Your task to perform on an android device: Search for Italian restaurants on Maps Image 0: 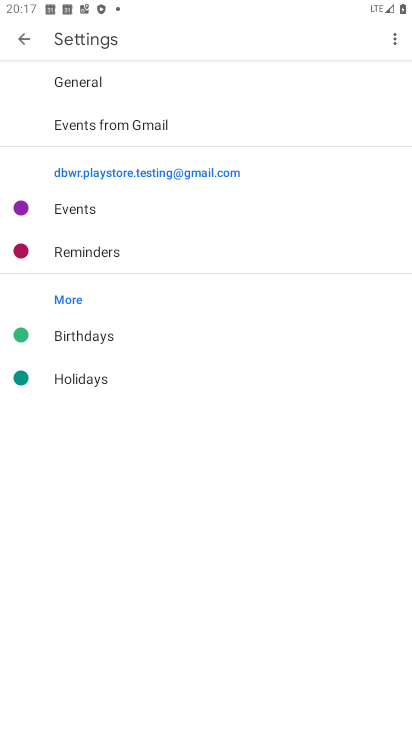
Step 0: press home button
Your task to perform on an android device: Search for Italian restaurants on Maps Image 1: 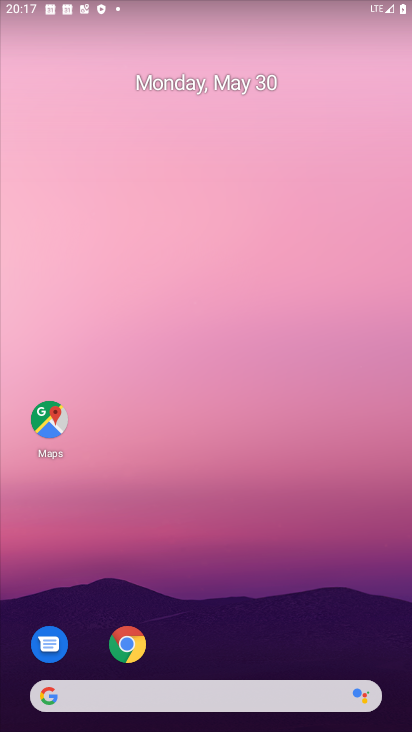
Step 1: click (49, 422)
Your task to perform on an android device: Search for Italian restaurants on Maps Image 2: 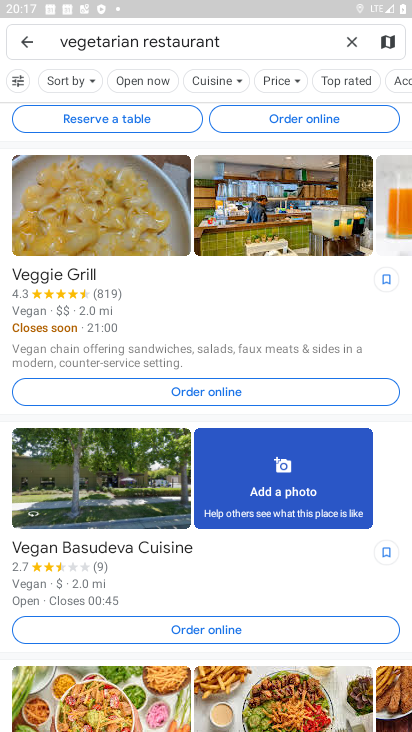
Step 2: click (352, 42)
Your task to perform on an android device: Search for Italian restaurants on Maps Image 3: 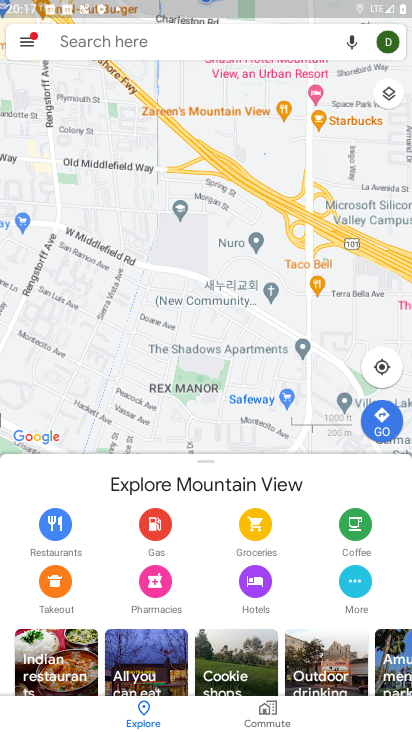
Step 3: click (248, 44)
Your task to perform on an android device: Search for Italian restaurants on Maps Image 4: 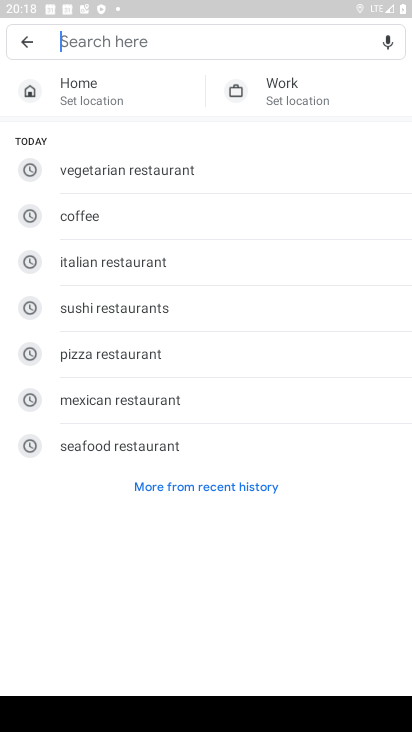
Step 4: type "Italian restaurants"
Your task to perform on an android device: Search for Italian restaurants on Maps Image 5: 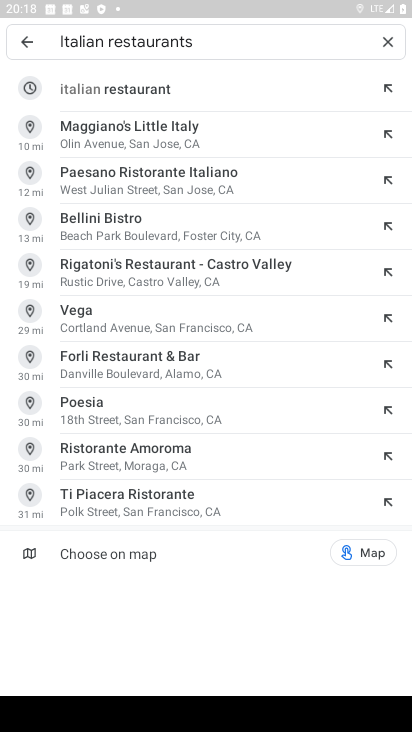
Step 5: click (150, 91)
Your task to perform on an android device: Search for Italian restaurants on Maps Image 6: 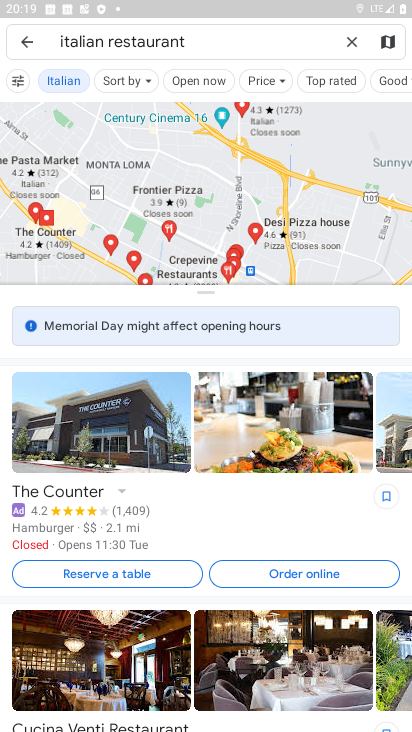
Step 6: task complete